Your task to perform on an android device: toggle translation in the chrome app Image 0: 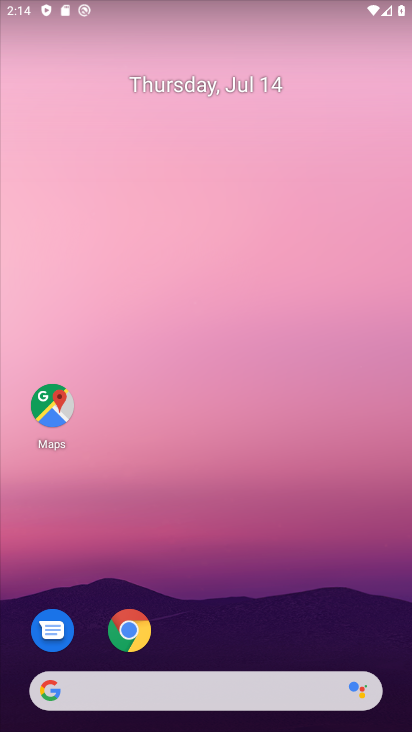
Step 0: click (123, 625)
Your task to perform on an android device: toggle translation in the chrome app Image 1: 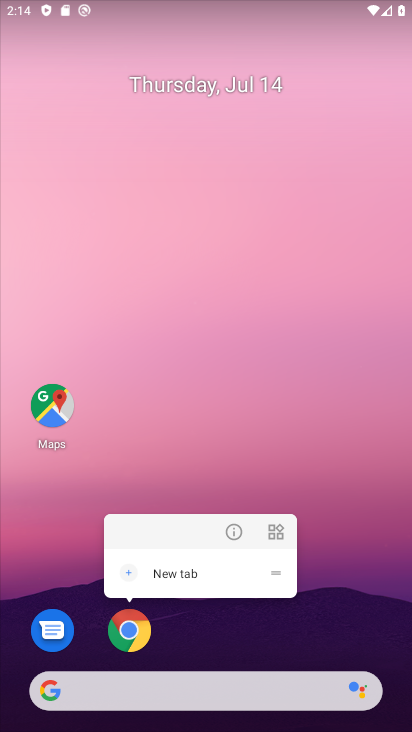
Step 1: click (123, 625)
Your task to perform on an android device: toggle translation in the chrome app Image 2: 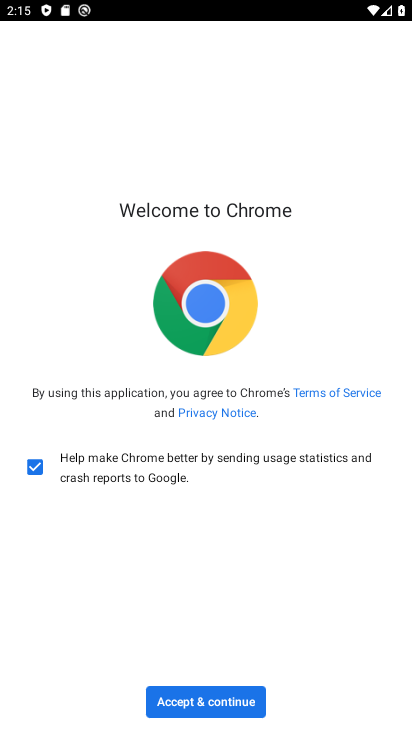
Step 2: click (203, 713)
Your task to perform on an android device: toggle translation in the chrome app Image 3: 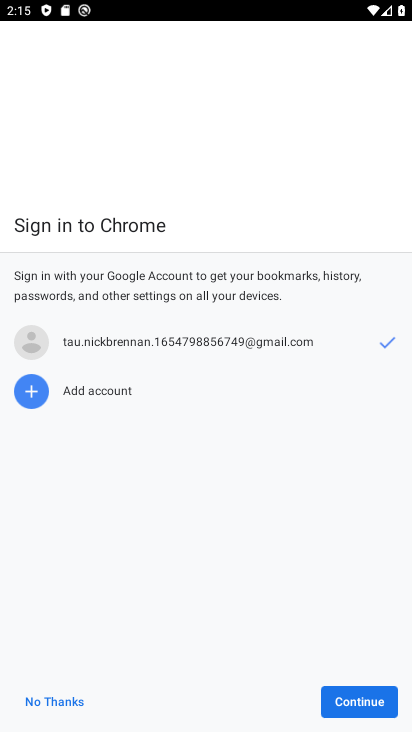
Step 3: click (377, 698)
Your task to perform on an android device: toggle translation in the chrome app Image 4: 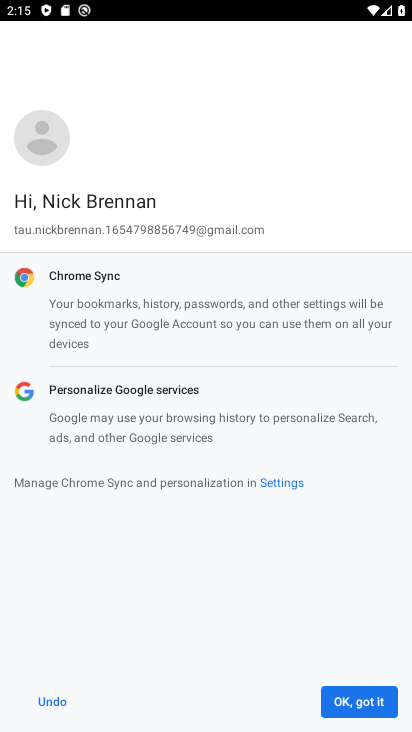
Step 4: click (377, 698)
Your task to perform on an android device: toggle translation in the chrome app Image 5: 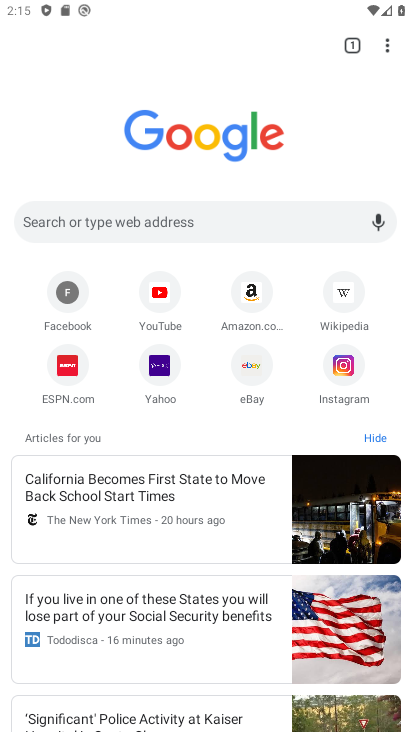
Step 5: click (382, 48)
Your task to perform on an android device: toggle translation in the chrome app Image 6: 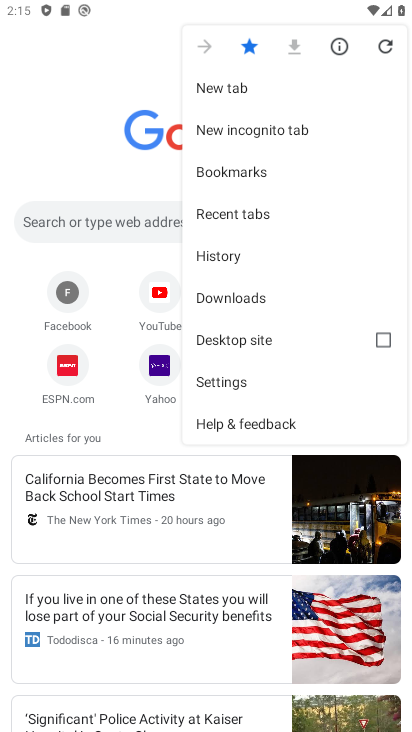
Step 6: click (251, 387)
Your task to perform on an android device: toggle translation in the chrome app Image 7: 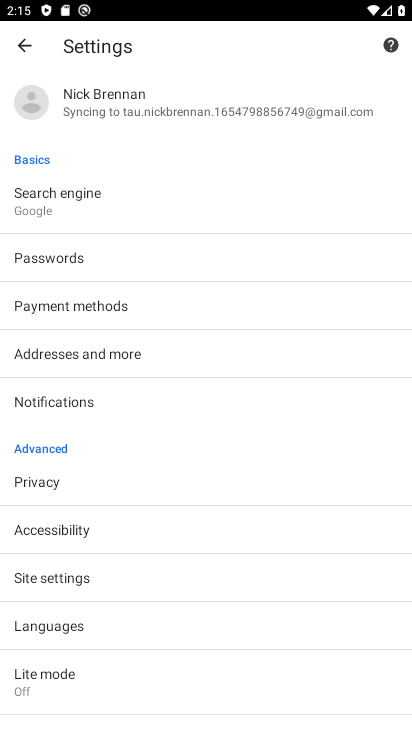
Step 7: click (134, 623)
Your task to perform on an android device: toggle translation in the chrome app Image 8: 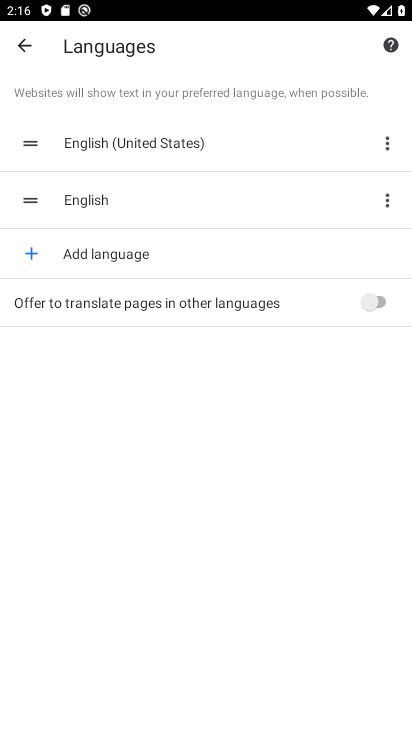
Step 8: click (378, 302)
Your task to perform on an android device: toggle translation in the chrome app Image 9: 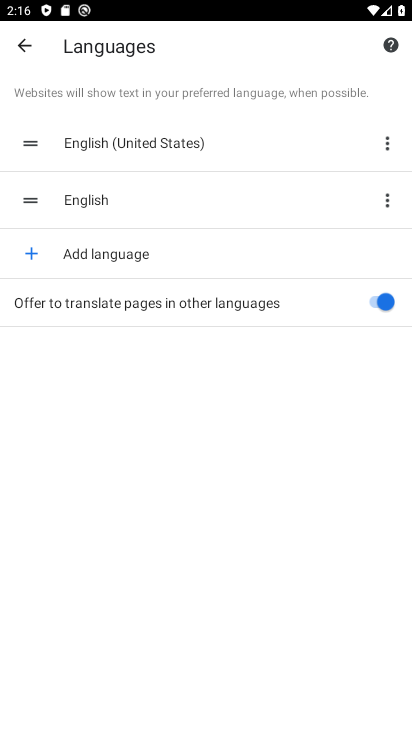
Step 9: task complete